Your task to perform on an android device: When is my next appointment? Image 0: 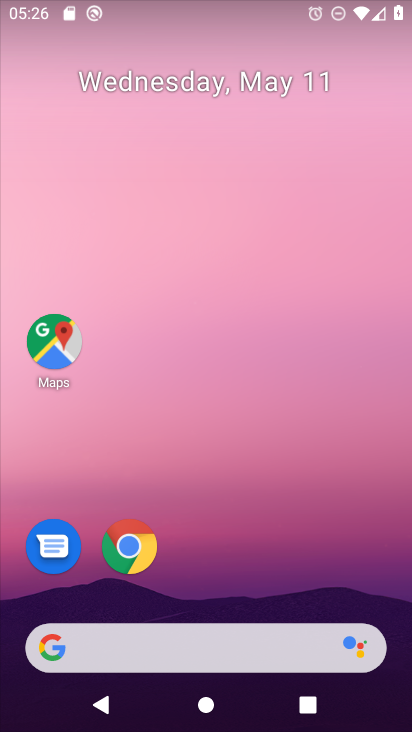
Step 0: drag from (81, 654) to (156, 27)
Your task to perform on an android device: When is my next appointment? Image 1: 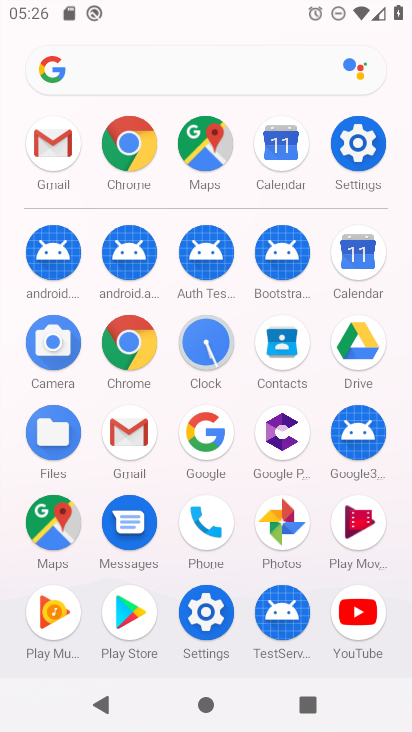
Step 1: click (366, 259)
Your task to perform on an android device: When is my next appointment? Image 2: 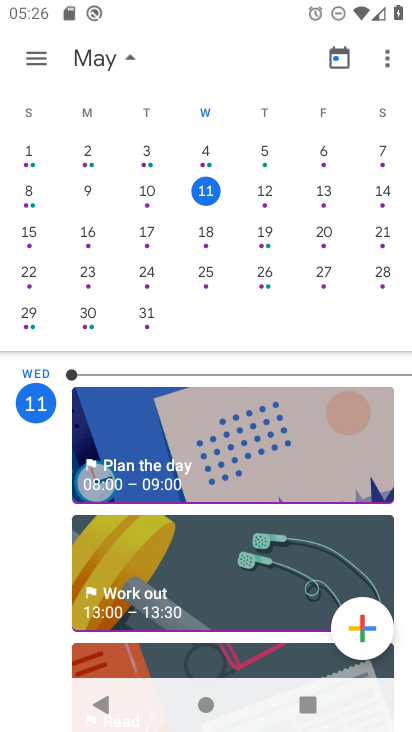
Step 2: click (201, 185)
Your task to perform on an android device: When is my next appointment? Image 3: 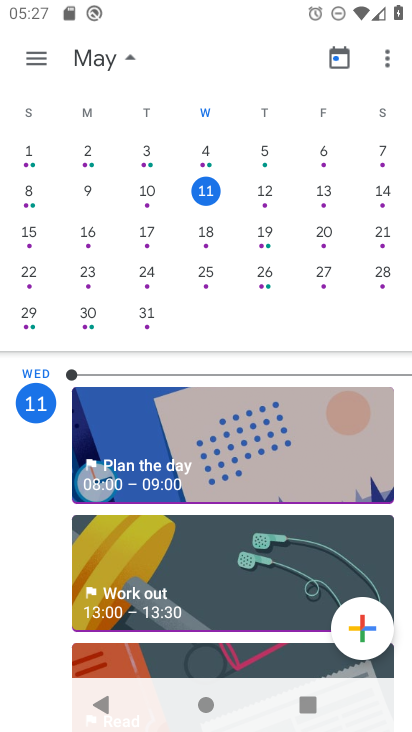
Step 3: task complete